Your task to perform on an android device: find snoozed emails in the gmail app Image 0: 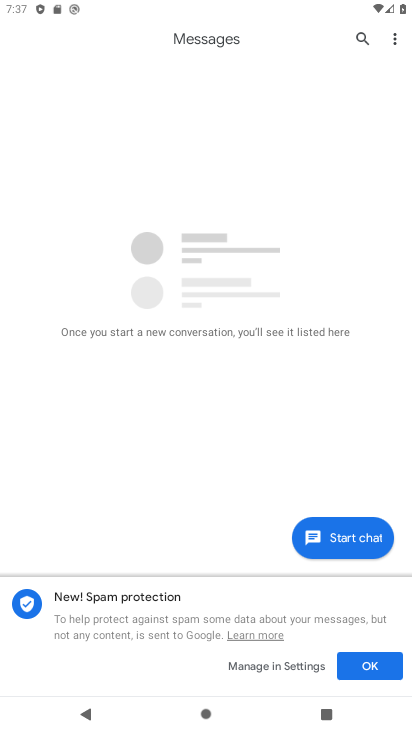
Step 0: press home button
Your task to perform on an android device: find snoozed emails in the gmail app Image 1: 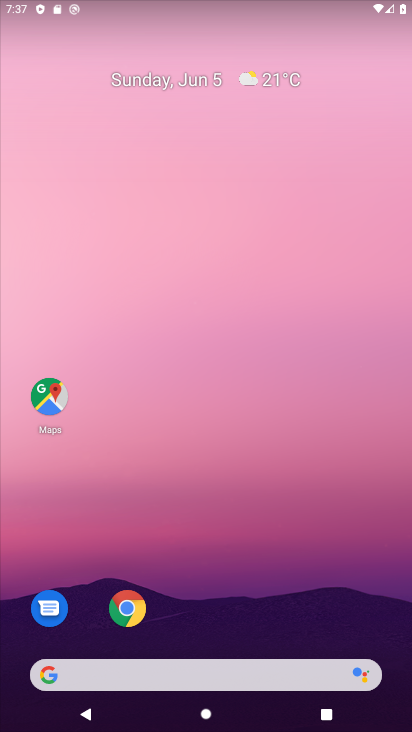
Step 1: drag from (310, 530) to (288, 185)
Your task to perform on an android device: find snoozed emails in the gmail app Image 2: 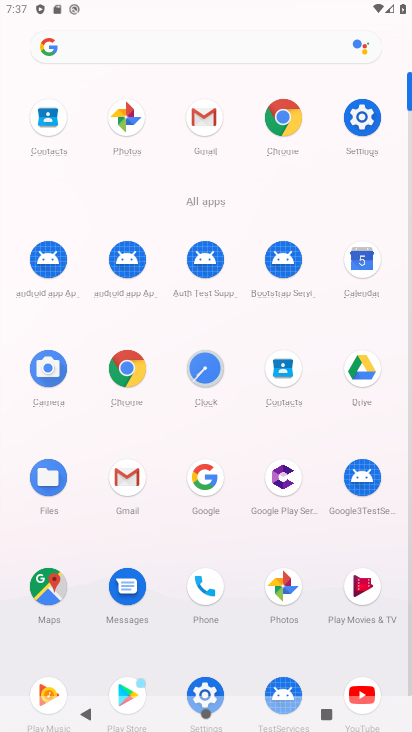
Step 2: click (141, 502)
Your task to perform on an android device: find snoozed emails in the gmail app Image 3: 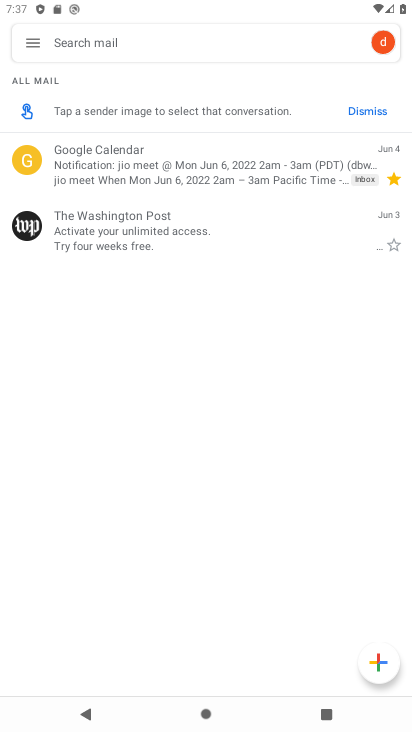
Step 3: click (35, 38)
Your task to perform on an android device: find snoozed emails in the gmail app Image 4: 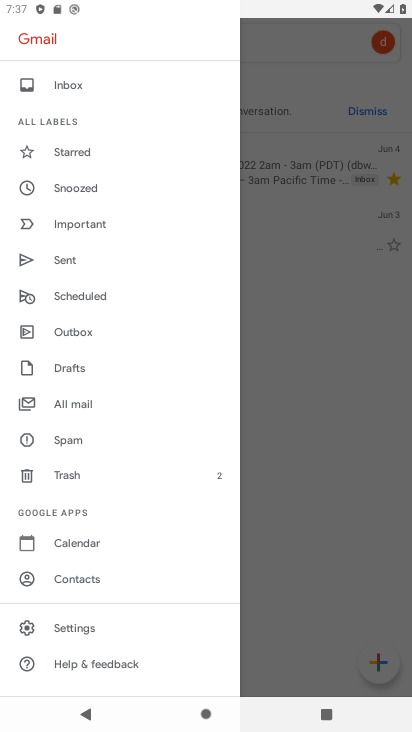
Step 4: click (104, 185)
Your task to perform on an android device: find snoozed emails in the gmail app Image 5: 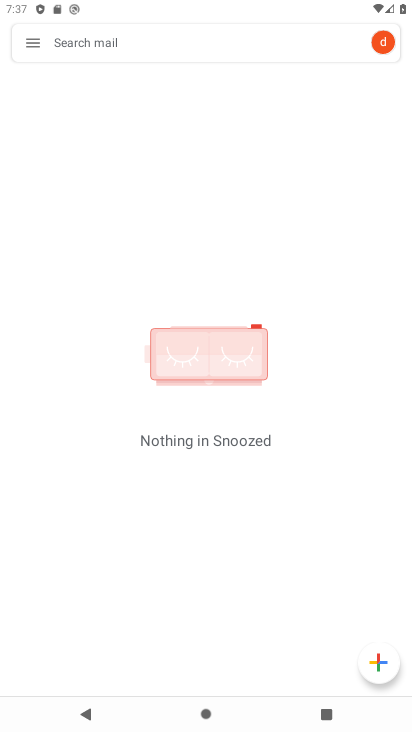
Step 5: task complete